Your task to perform on an android device: turn off data saver in the chrome app Image 0: 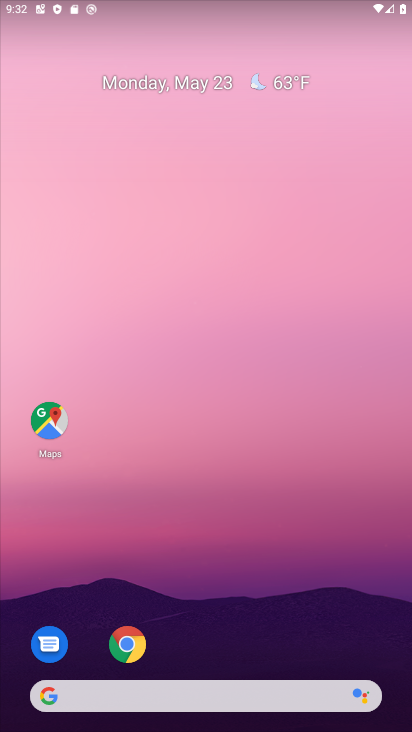
Step 0: press home button
Your task to perform on an android device: turn off data saver in the chrome app Image 1: 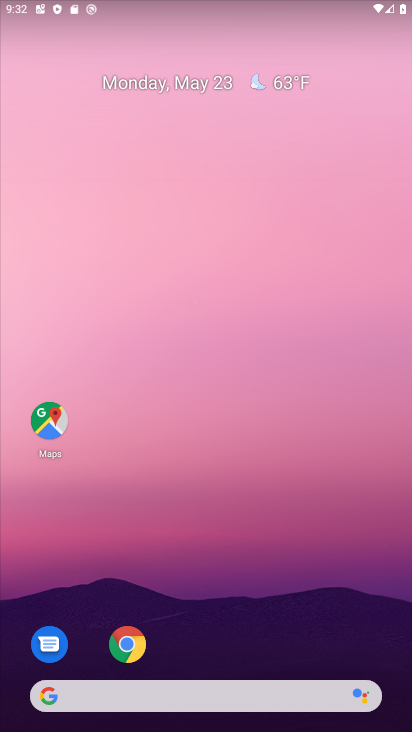
Step 1: drag from (210, 649) to (282, 2)
Your task to perform on an android device: turn off data saver in the chrome app Image 2: 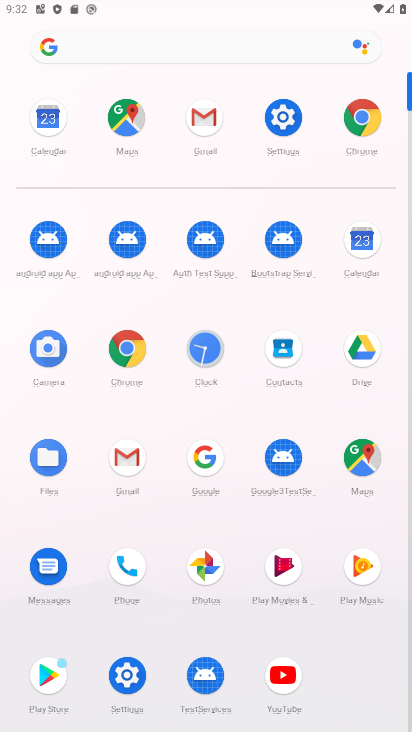
Step 2: click (124, 340)
Your task to perform on an android device: turn off data saver in the chrome app Image 3: 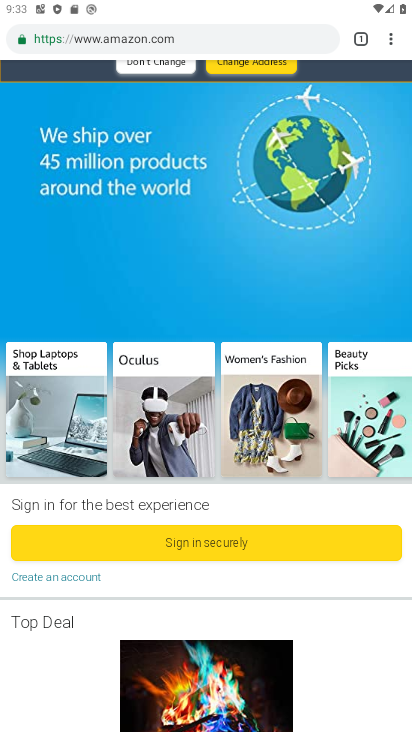
Step 3: click (381, 40)
Your task to perform on an android device: turn off data saver in the chrome app Image 4: 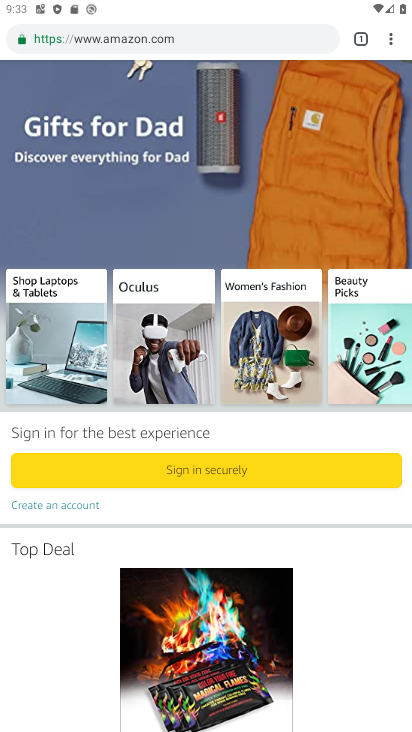
Step 4: click (390, 38)
Your task to perform on an android device: turn off data saver in the chrome app Image 5: 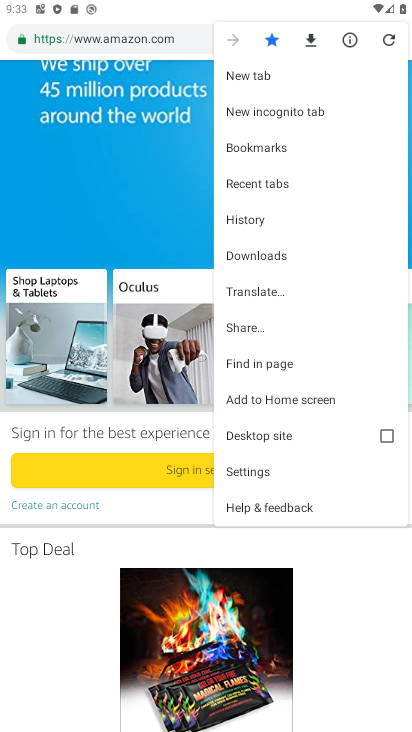
Step 5: click (277, 476)
Your task to perform on an android device: turn off data saver in the chrome app Image 6: 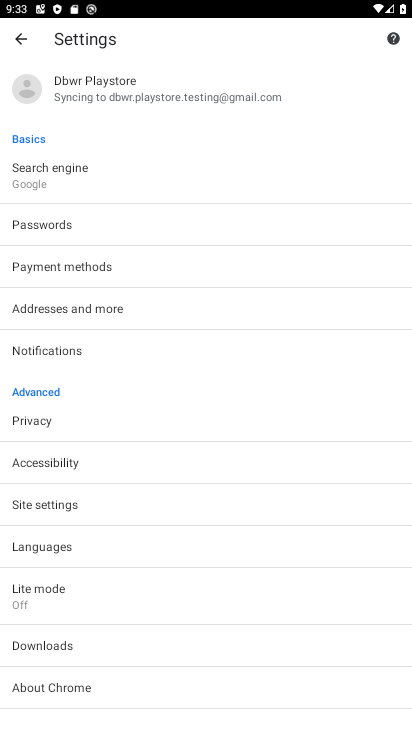
Step 6: click (67, 604)
Your task to perform on an android device: turn off data saver in the chrome app Image 7: 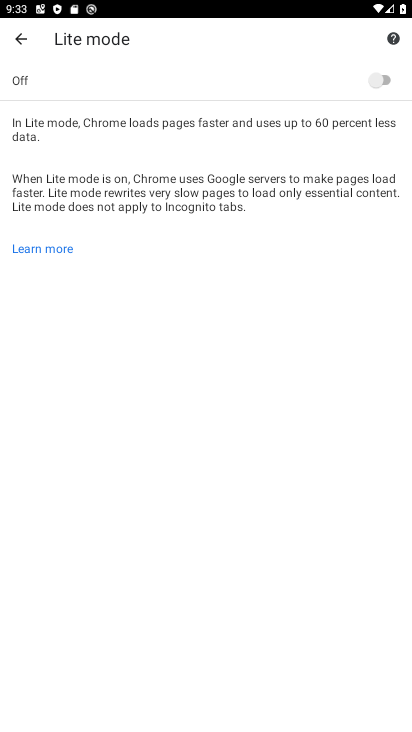
Step 7: task complete